Your task to perform on an android device: install app "Adobe Acrobat Reader" Image 0: 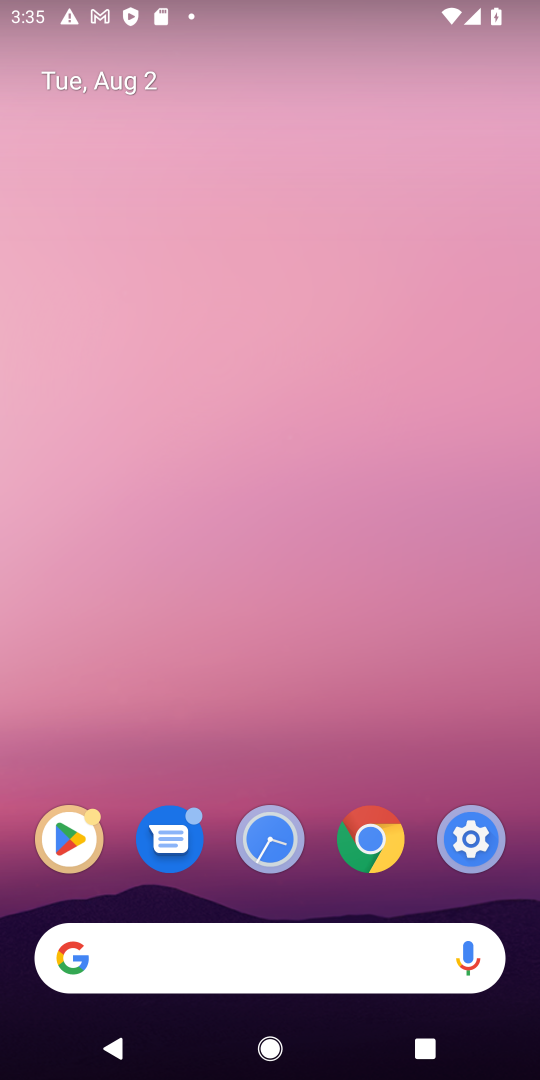
Step 0: drag from (247, 756) to (247, 16)
Your task to perform on an android device: install app "Adobe Acrobat Reader" Image 1: 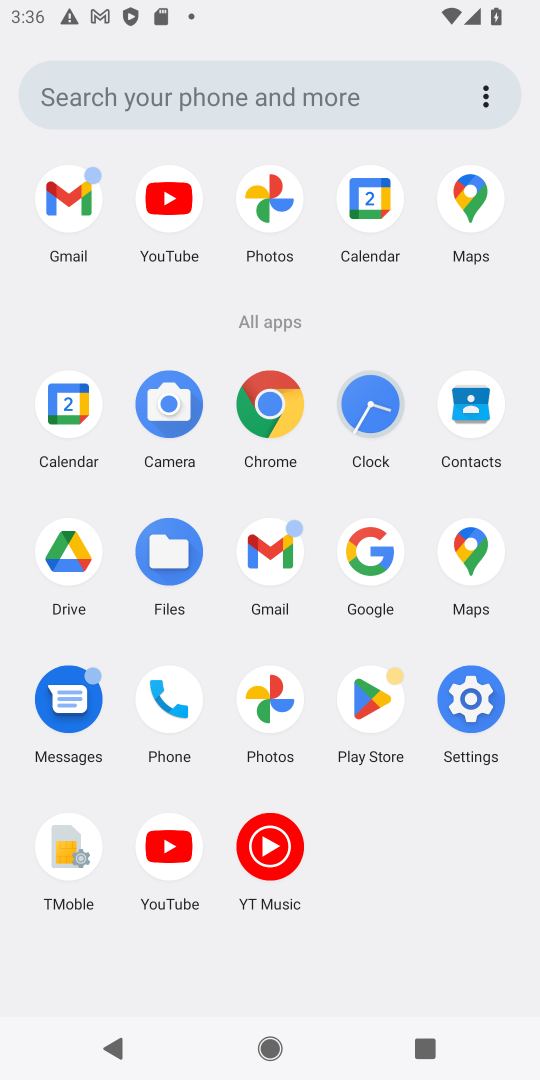
Step 1: click (387, 688)
Your task to perform on an android device: install app "Adobe Acrobat Reader" Image 2: 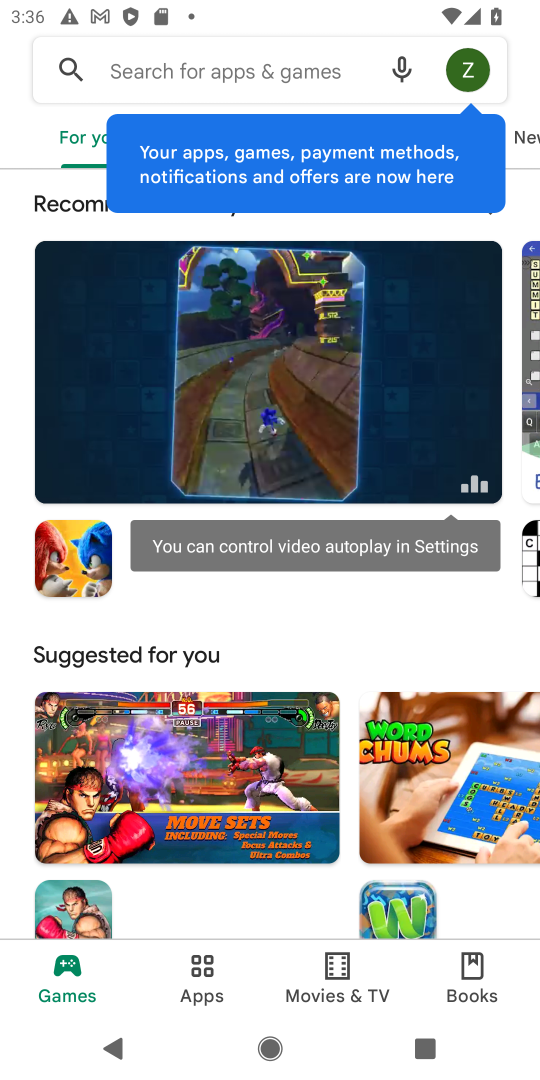
Step 2: click (188, 76)
Your task to perform on an android device: install app "Adobe Acrobat Reader" Image 3: 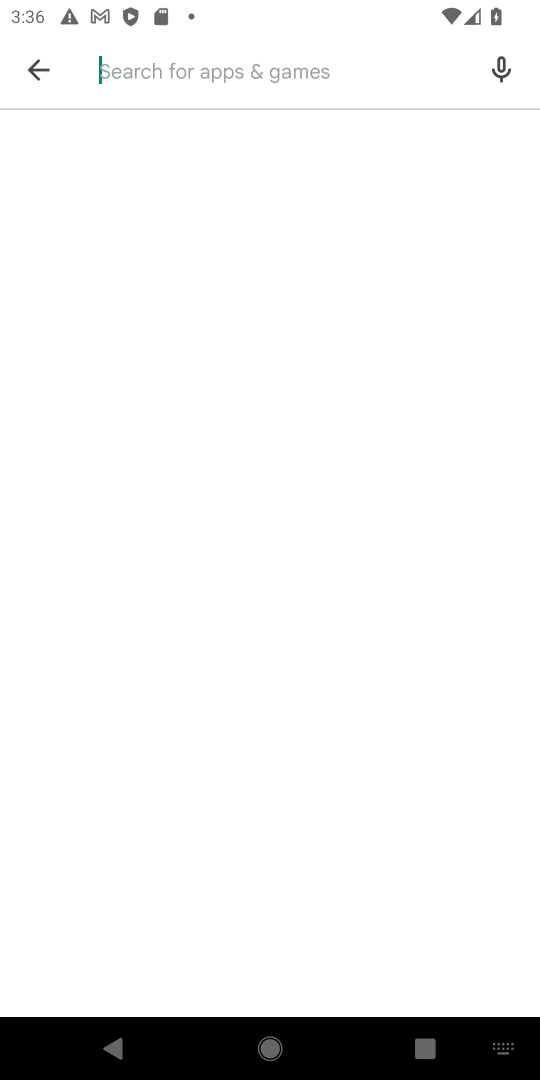
Step 3: type "Adobe Acrobat Reader"
Your task to perform on an android device: install app "Adobe Acrobat Reader" Image 4: 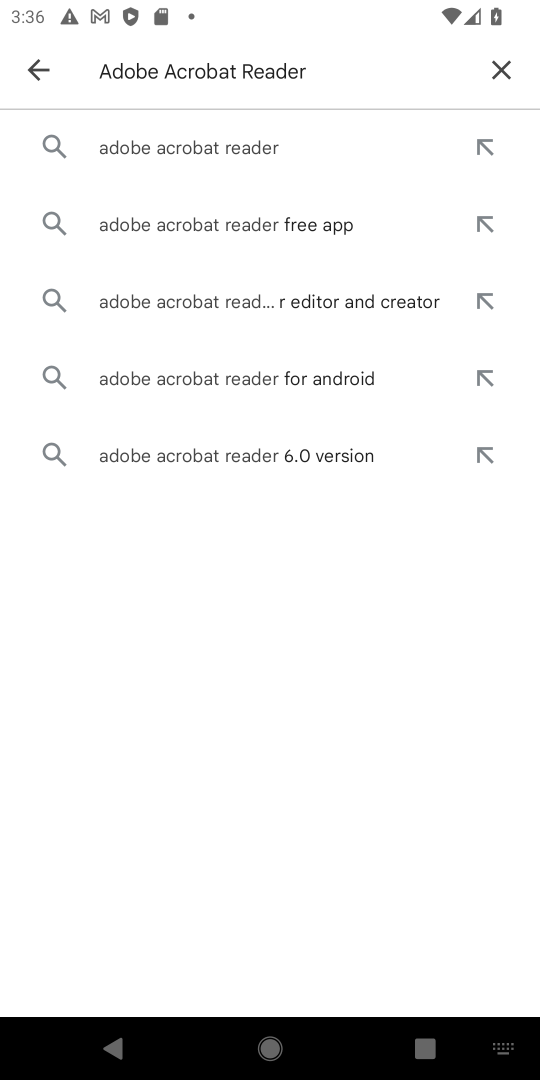
Step 4: click (168, 146)
Your task to perform on an android device: install app "Adobe Acrobat Reader" Image 5: 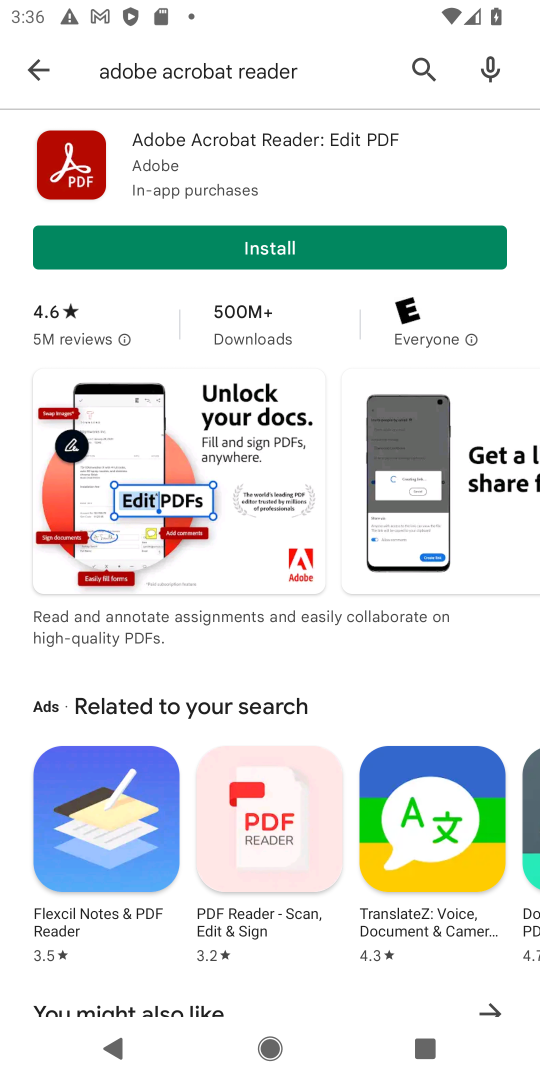
Step 5: click (212, 253)
Your task to perform on an android device: install app "Adobe Acrobat Reader" Image 6: 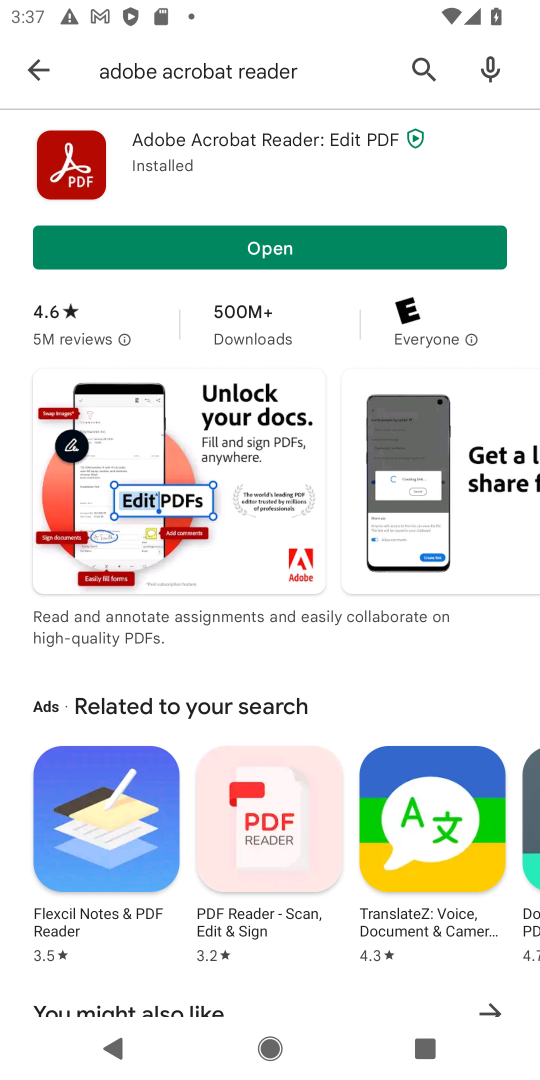
Step 6: click (253, 251)
Your task to perform on an android device: install app "Adobe Acrobat Reader" Image 7: 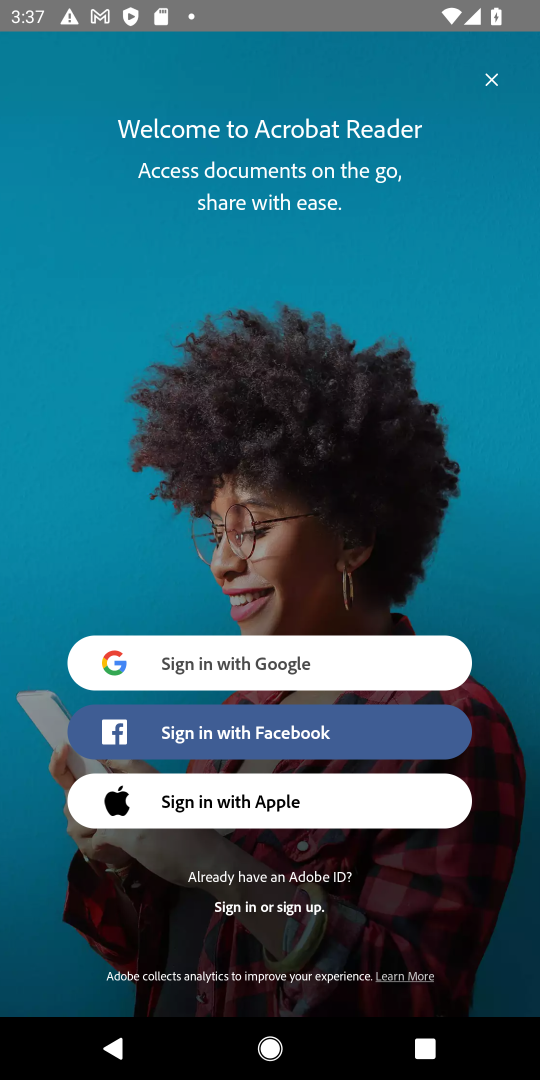
Step 7: task complete